Your task to perform on an android device: see tabs open on other devices in the chrome app Image 0: 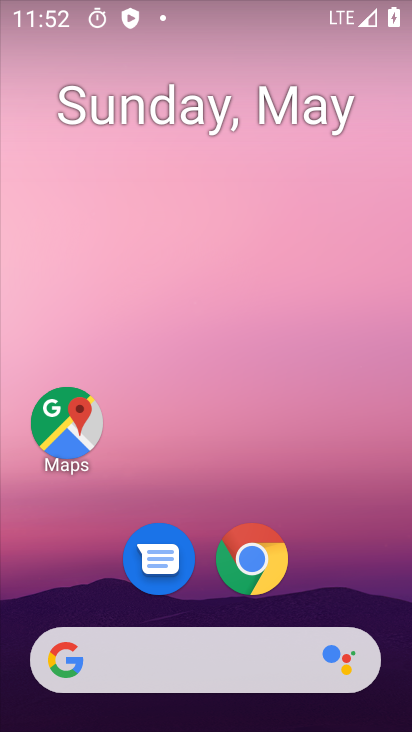
Step 0: drag from (317, 651) to (302, 0)
Your task to perform on an android device: see tabs open on other devices in the chrome app Image 1: 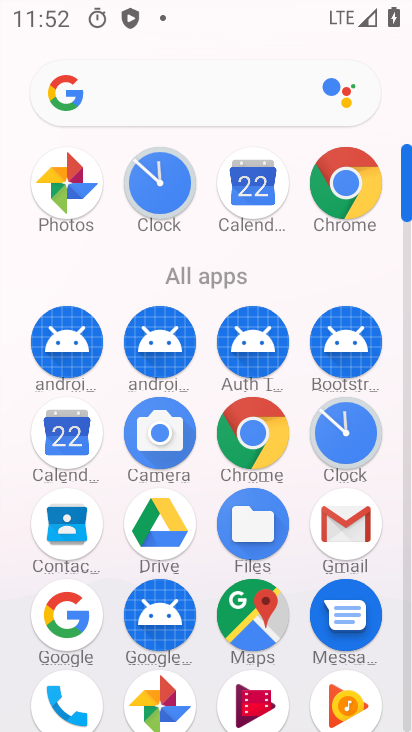
Step 1: click (61, 430)
Your task to perform on an android device: see tabs open on other devices in the chrome app Image 2: 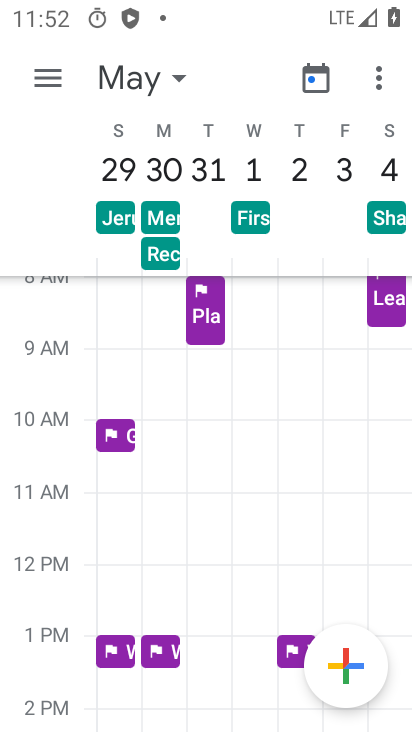
Step 2: press home button
Your task to perform on an android device: see tabs open on other devices in the chrome app Image 3: 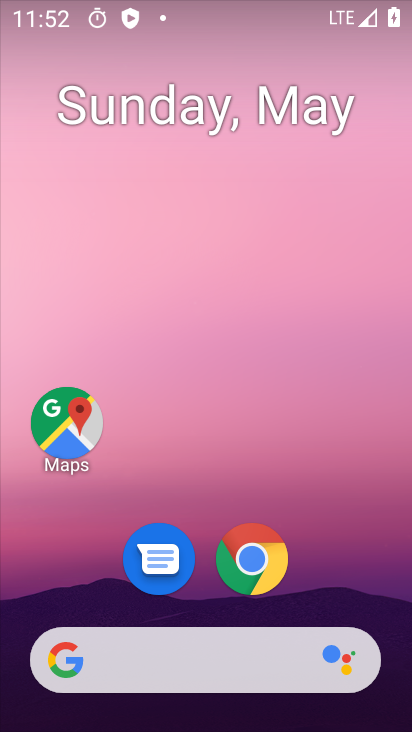
Step 3: drag from (355, 644) to (360, 1)
Your task to perform on an android device: see tabs open on other devices in the chrome app Image 4: 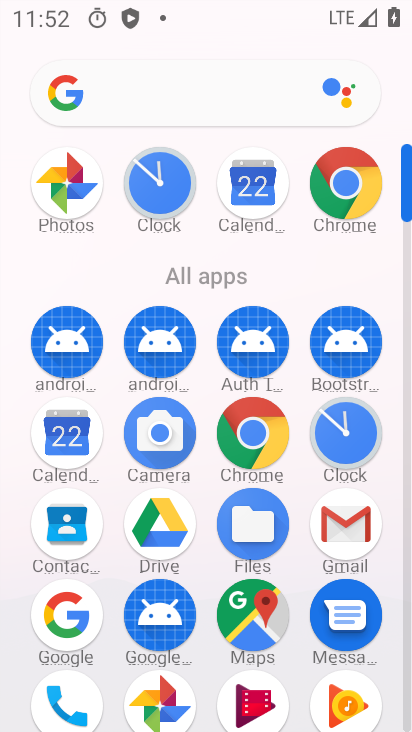
Step 4: click (265, 454)
Your task to perform on an android device: see tabs open on other devices in the chrome app Image 5: 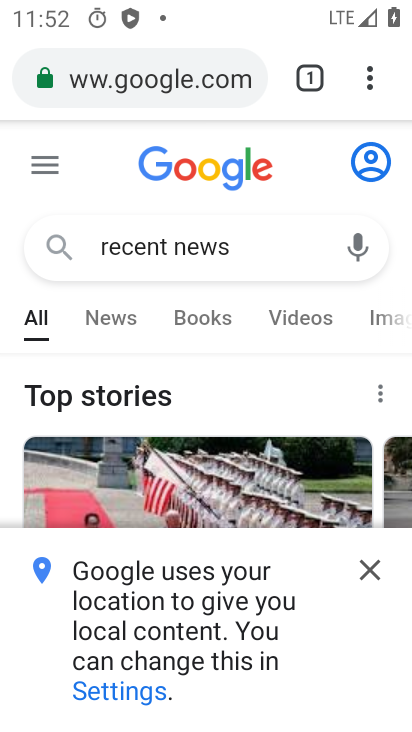
Step 5: task complete